Your task to perform on an android device: Open ESPN.com Image 0: 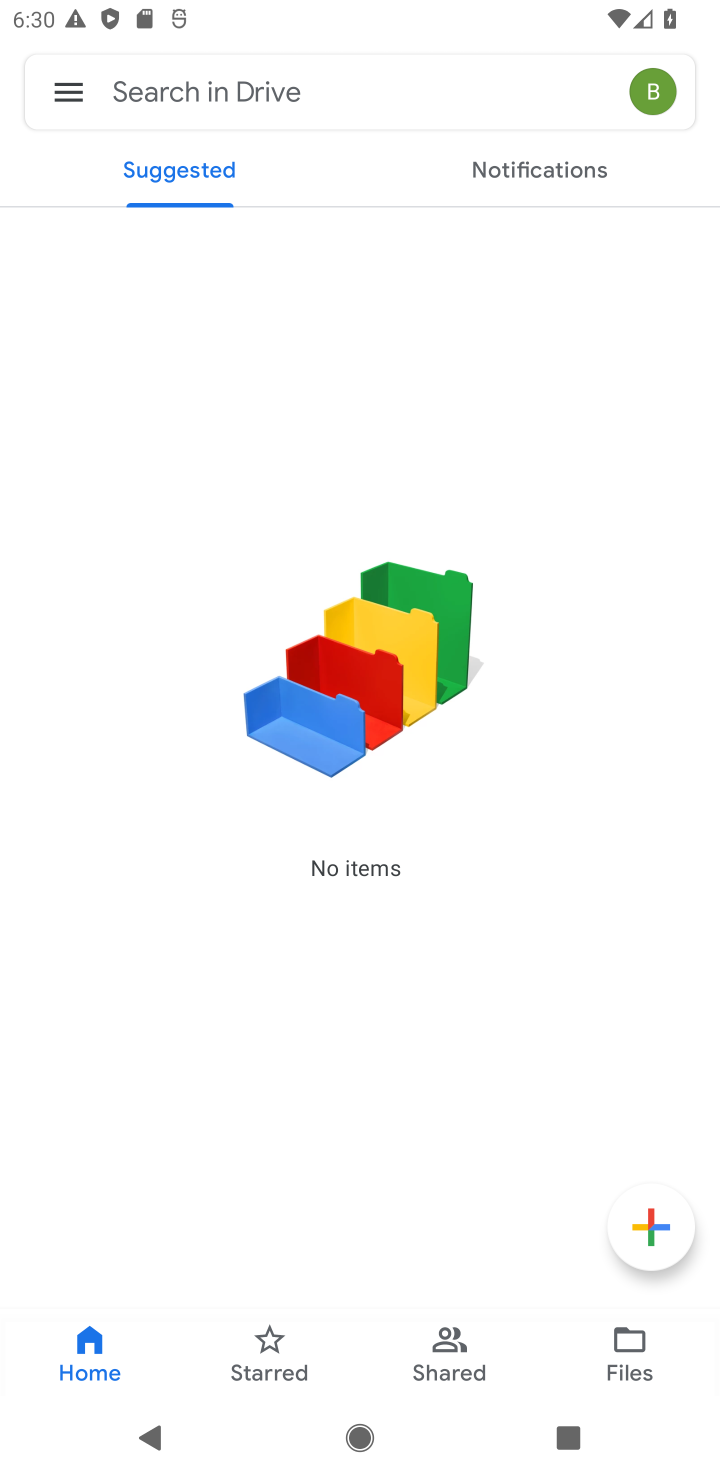
Step 0: press home button
Your task to perform on an android device: Open ESPN.com Image 1: 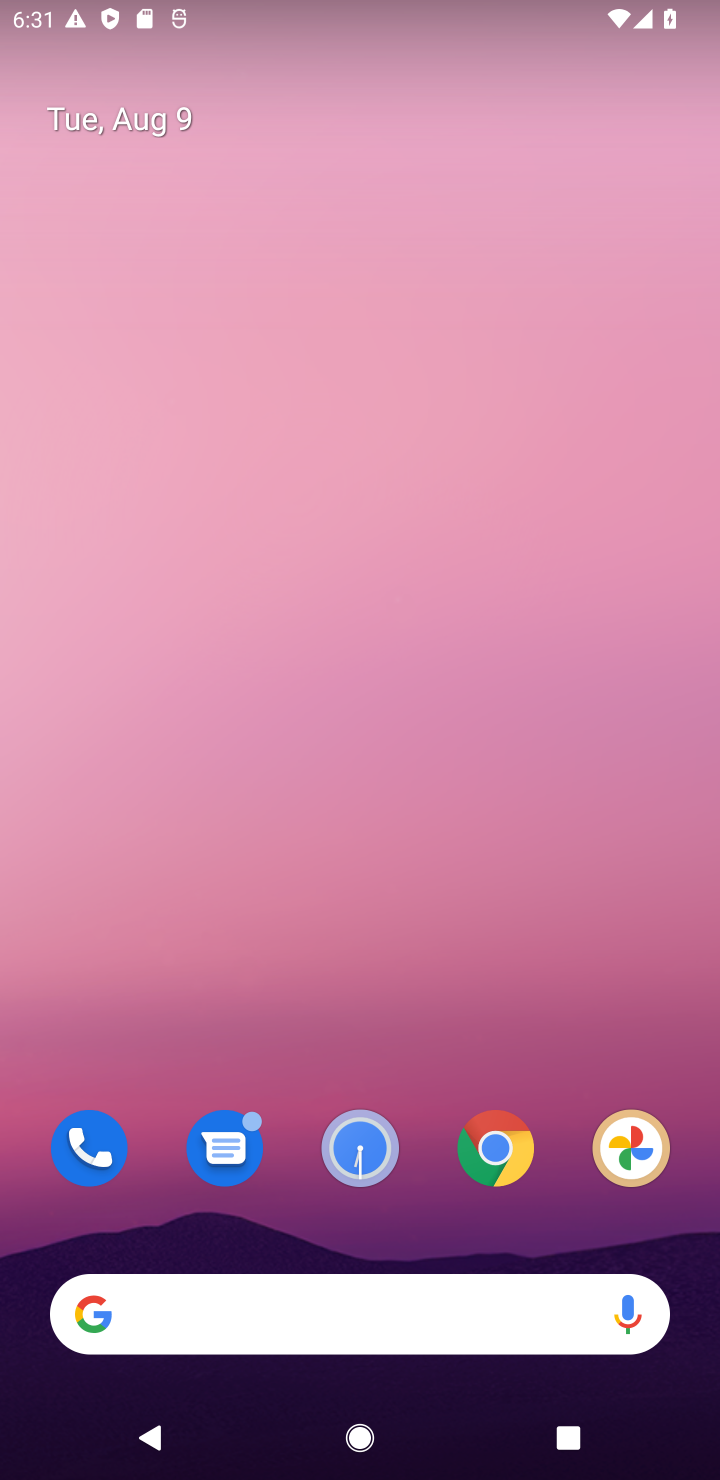
Step 1: click (515, 1158)
Your task to perform on an android device: Open ESPN.com Image 2: 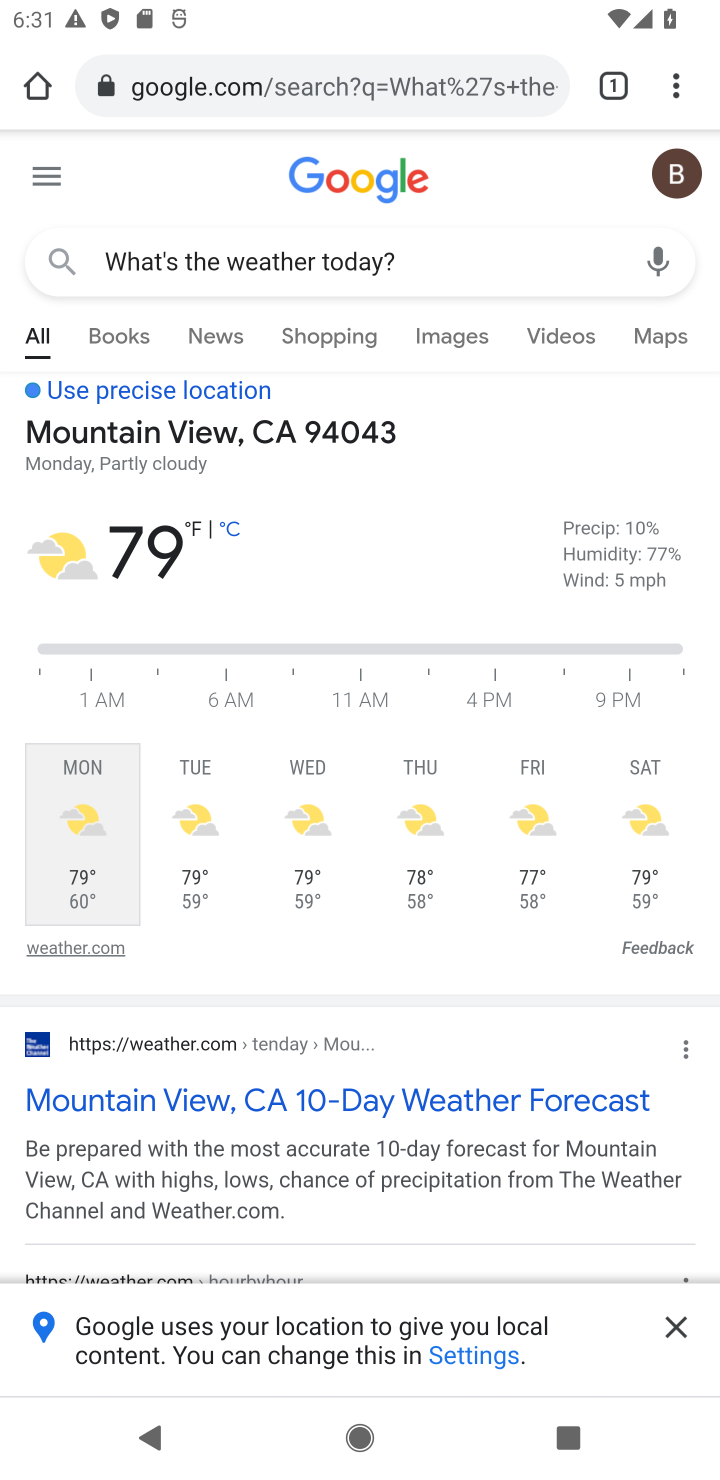
Step 2: click (472, 95)
Your task to perform on an android device: Open ESPN.com Image 3: 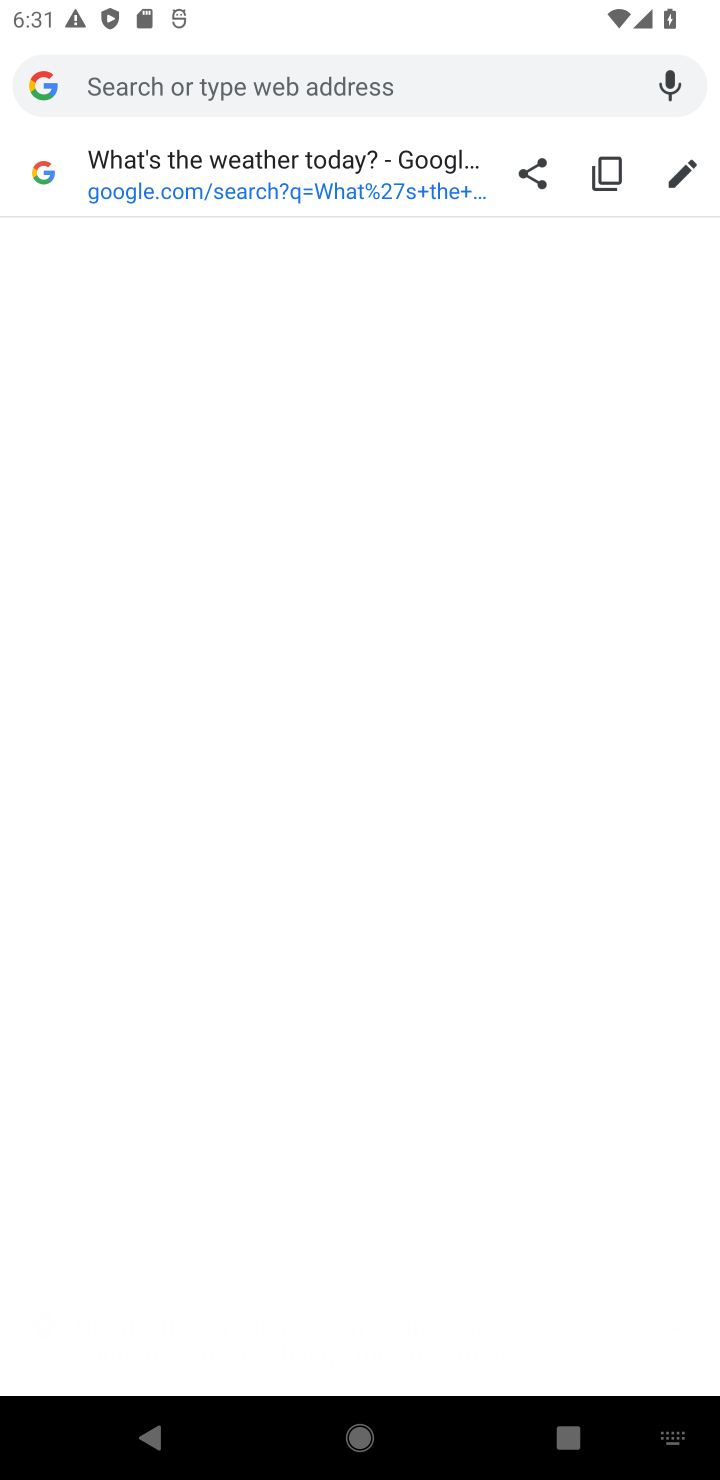
Step 3: type "ESPN.com"
Your task to perform on an android device: Open ESPN.com Image 4: 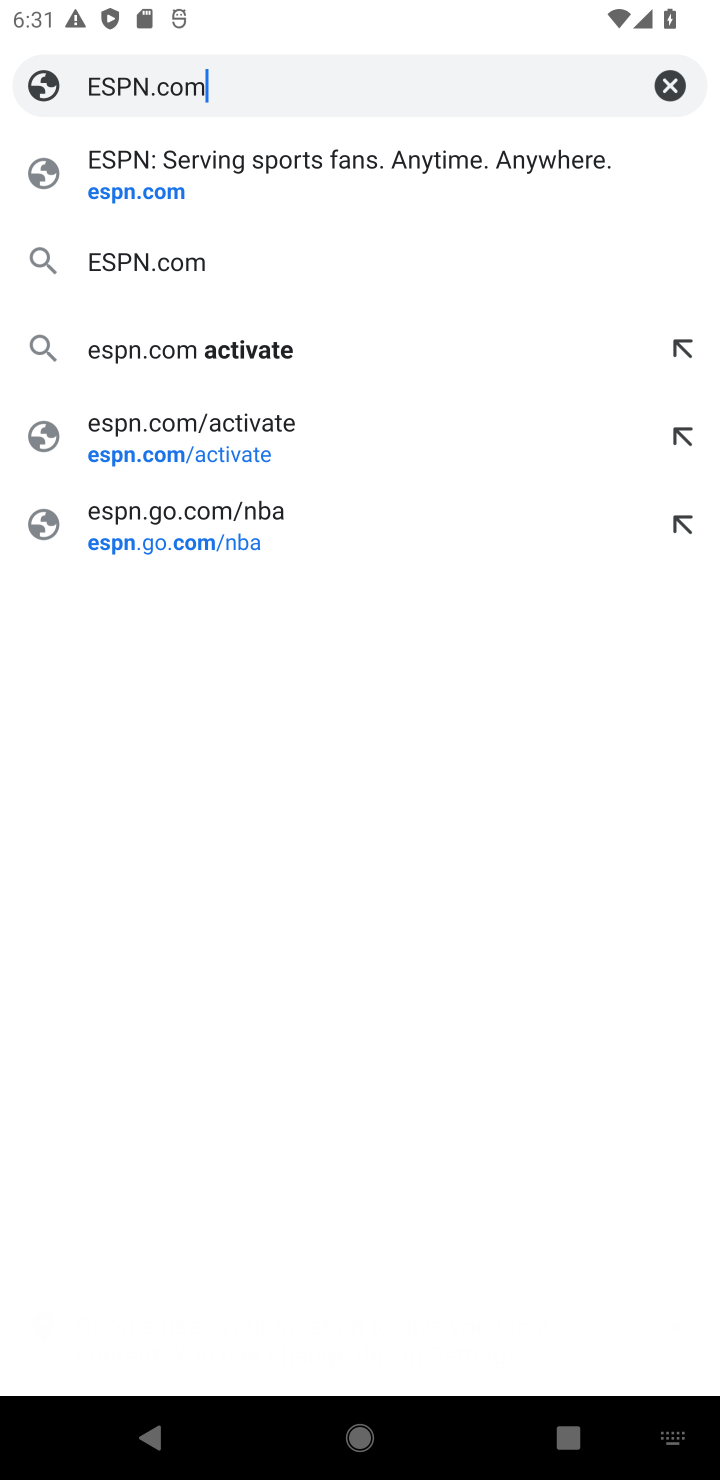
Step 4: click (166, 179)
Your task to perform on an android device: Open ESPN.com Image 5: 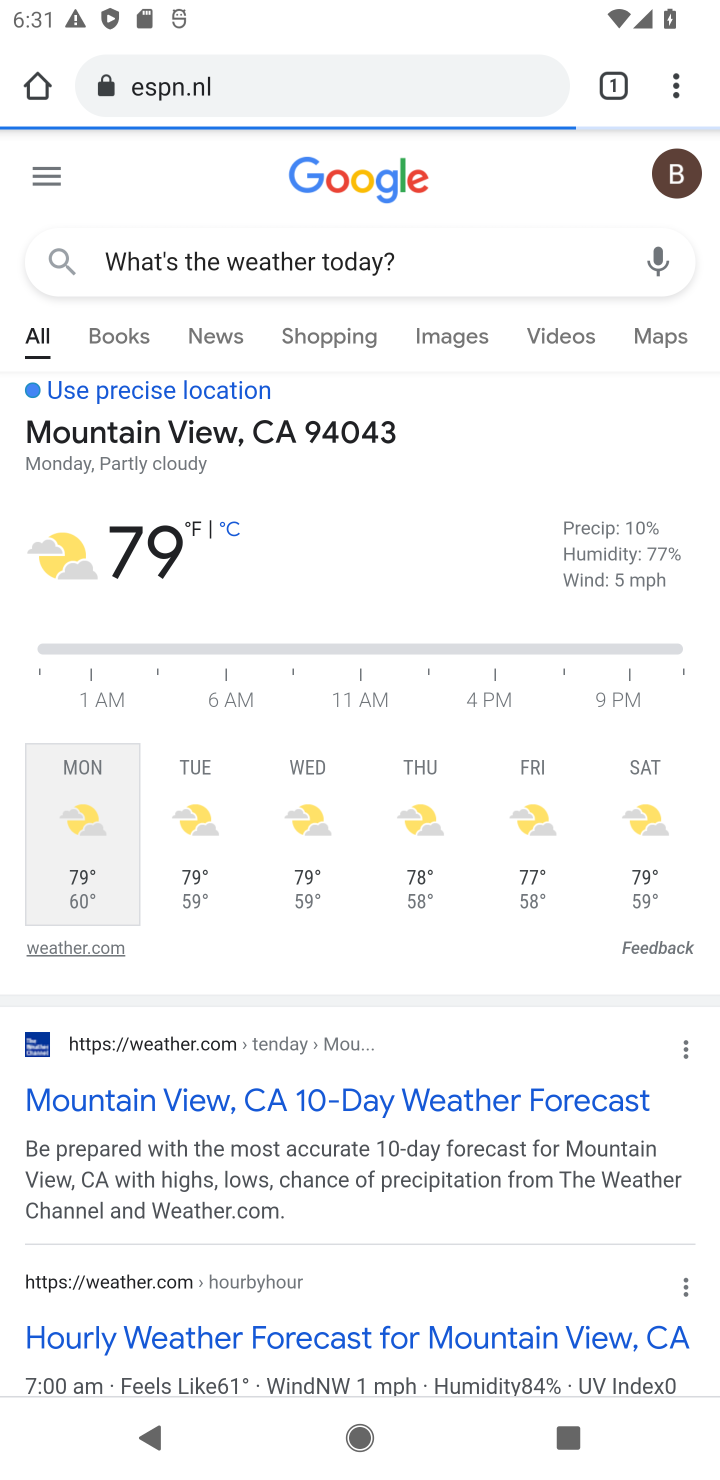
Step 5: task complete